Your task to perform on an android device: Search for sushi restaurants on Maps Image 0: 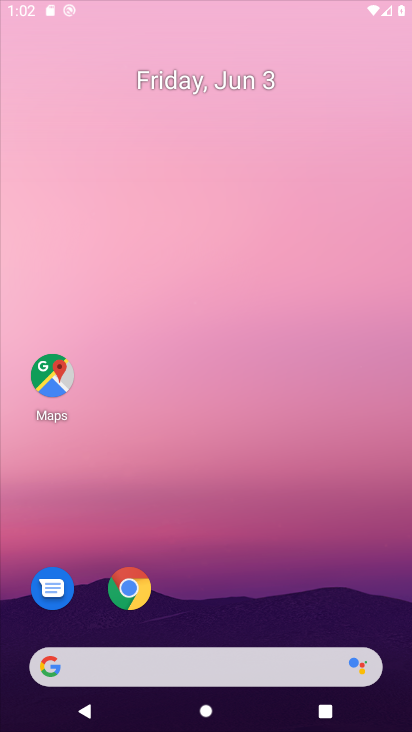
Step 0: click (260, 90)
Your task to perform on an android device: Search for sushi restaurants on Maps Image 1: 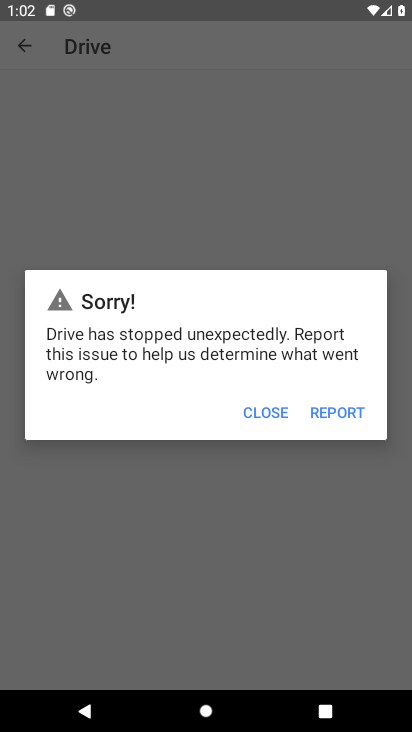
Step 1: press home button
Your task to perform on an android device: Search for sushi restaurants on Maps Image 2: 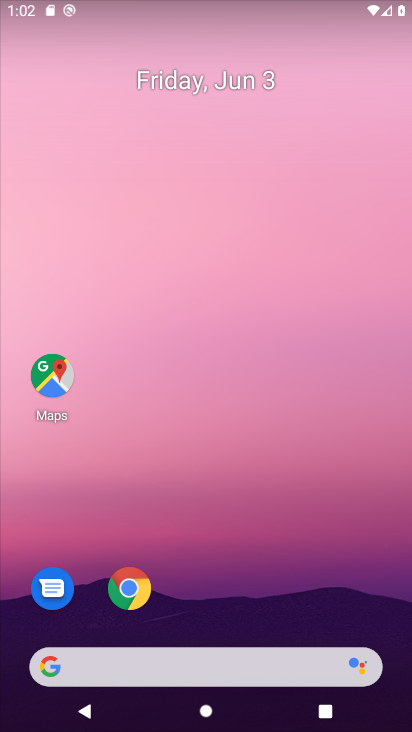
Step 2: drag from (219, 630) to (269, 58)
Your task to perform on an android device: Search for sushi restaurants on Maps Image 3: 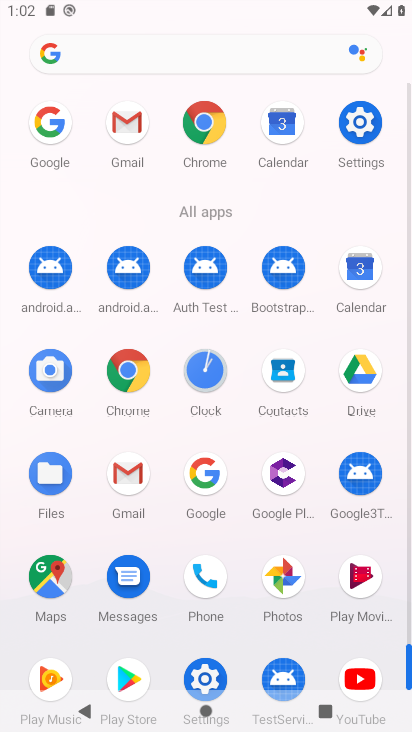
Step 3: click (67, 584)
Your task to perform on an android device: Search for sushi restaurants on Maps Image 4: 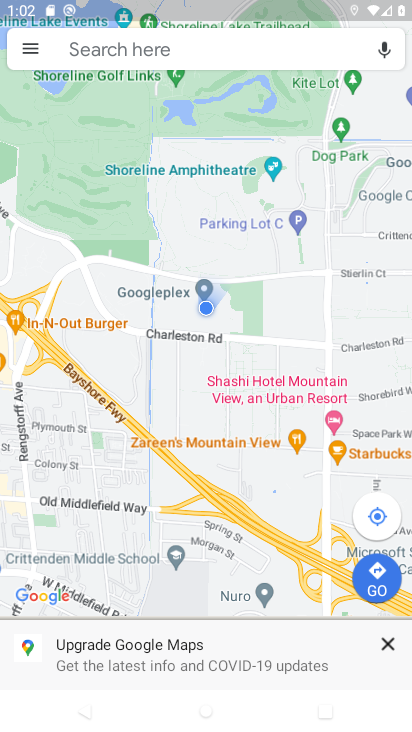
Step 4: click (180, 48)
Your task to perform on an android device: Search for sushi restaurants on Maps Image 5: 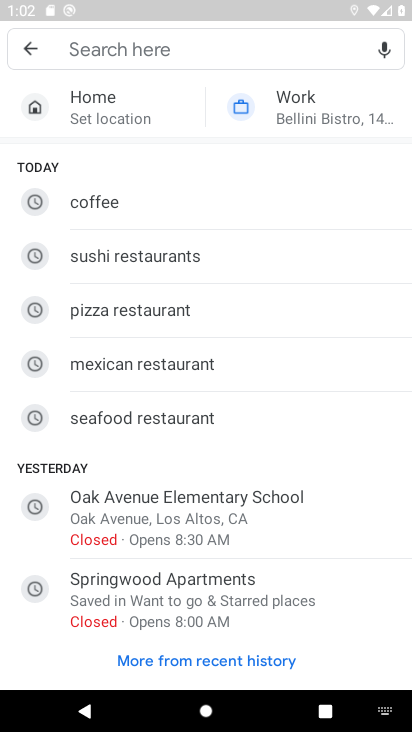
Step 5: click (173, 258)
Your task to perform on an android device: Search for sushi restaurants on Maps Image 6: 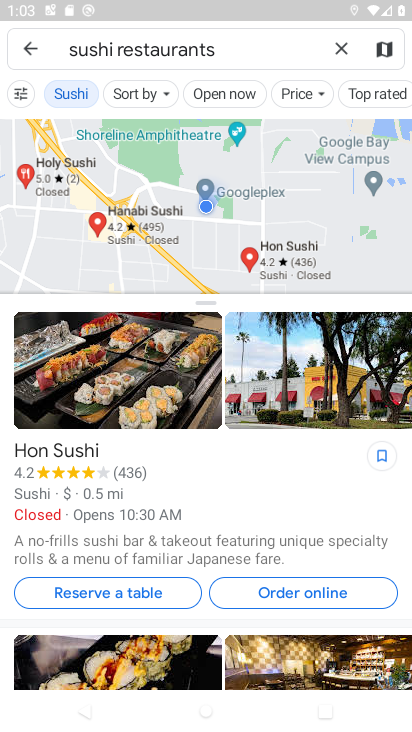
Step 6: task complete